Your task to perform on an android device: Search for flights from NYC to Mexico city Image 0: 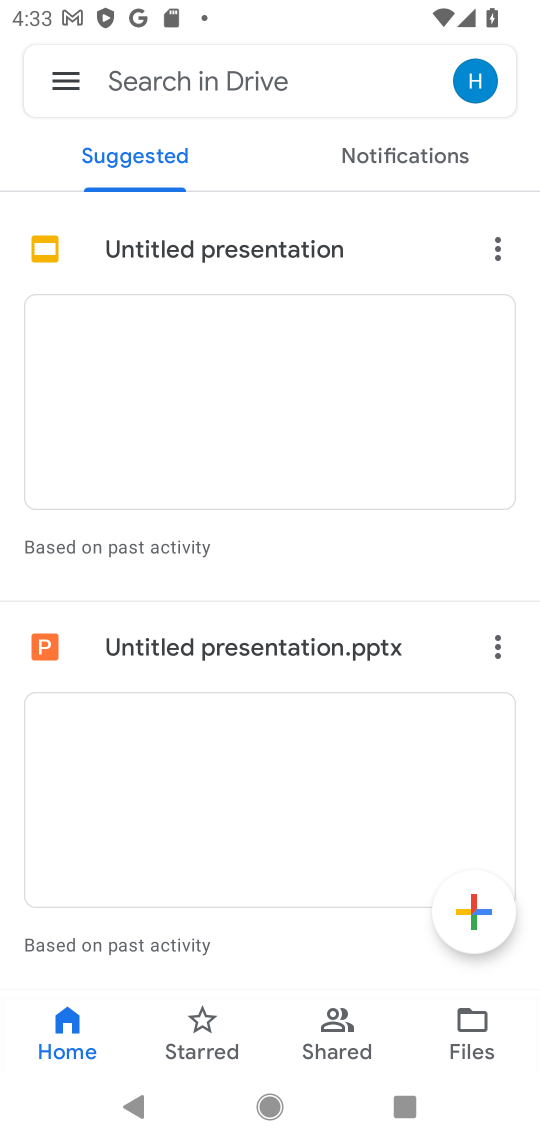
Step 0: press home button
Your task to perform on an android device: Search for flights from NYC to Mexico city Image 1: 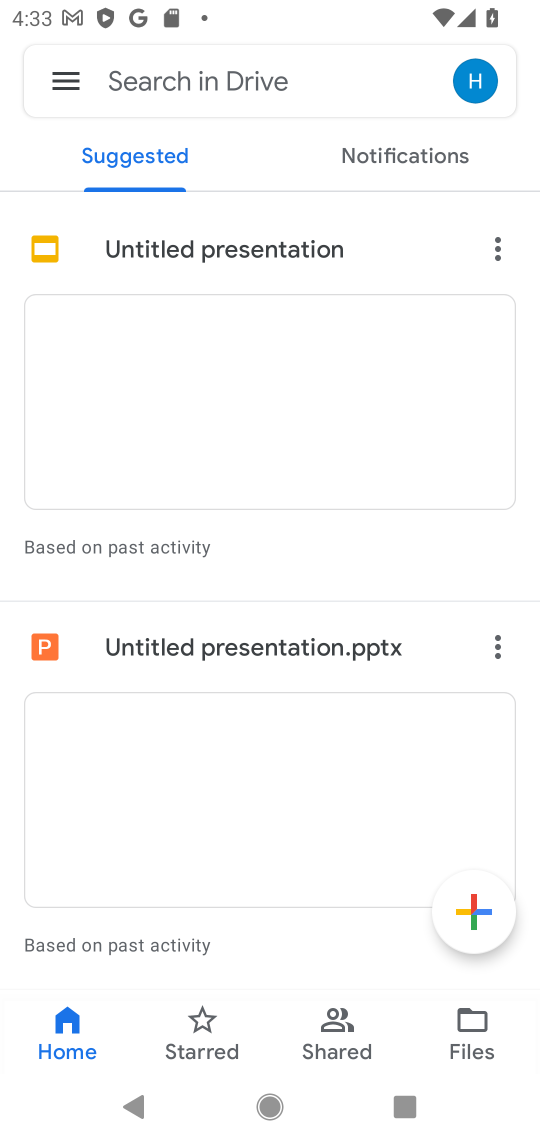
Step 1: press home button
Your task to perform on an android device: Search for flights from NYC to Mexico city Image 2: 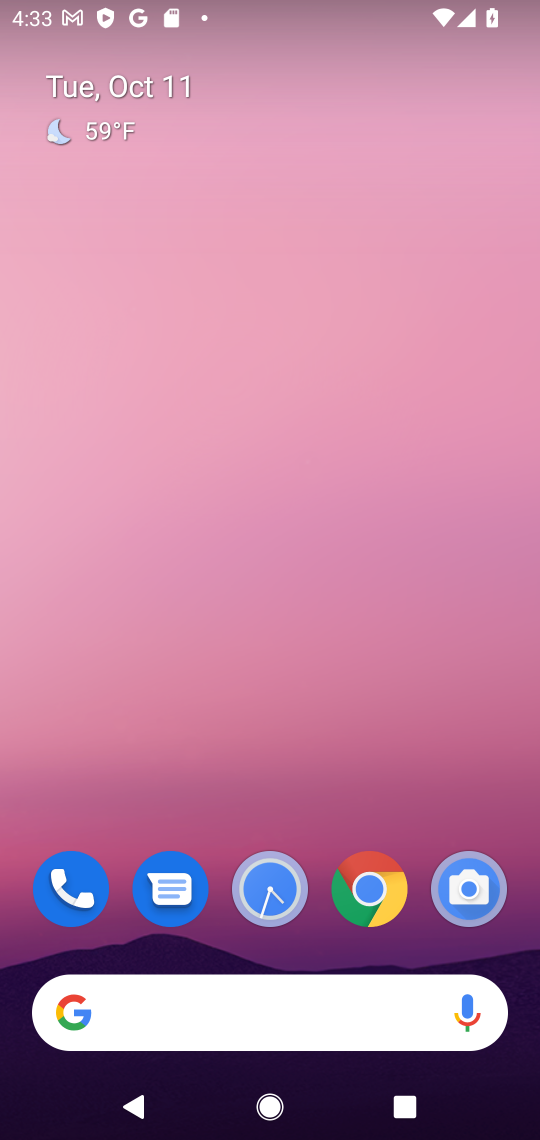
Step 2: drag from (289, 964) to (288, 358)
Your task to perform on an android device: Search for flights from NYC to Mexico city Image 3: 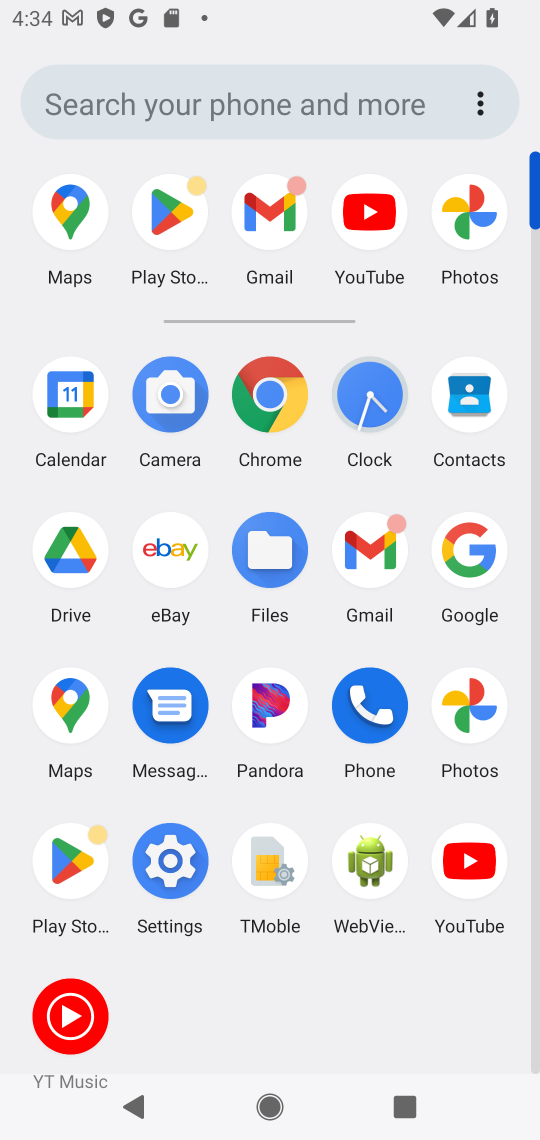
Step 3: click (482, 547)
Your task to perform on an android device: Search for flights from NYC to Mexico city Image 4: 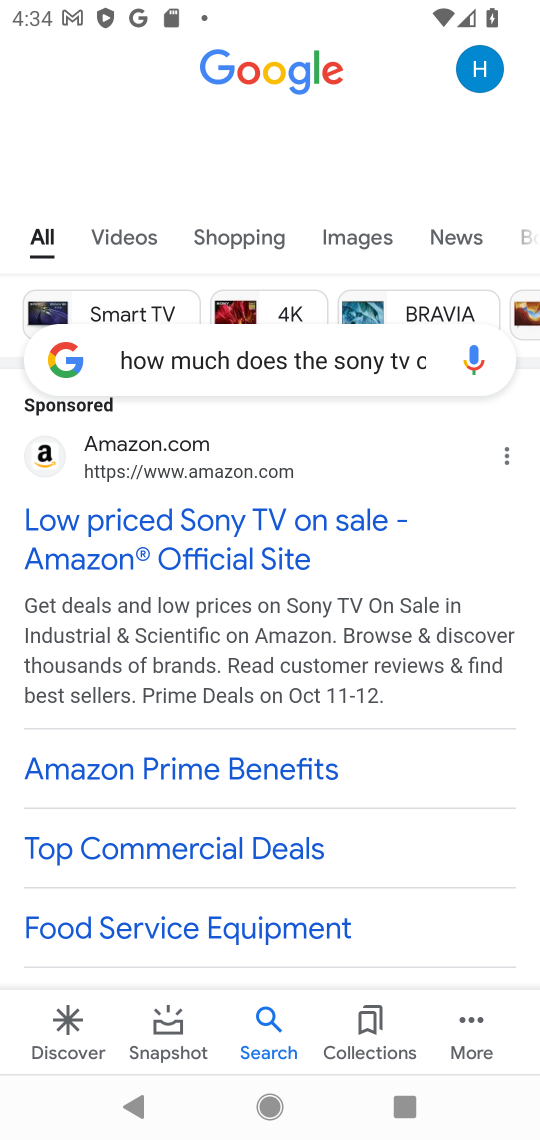
Step 4: click (206, 351)
Your task to perform on an android device: Search for flights from NYC to Mexico city Image 5: 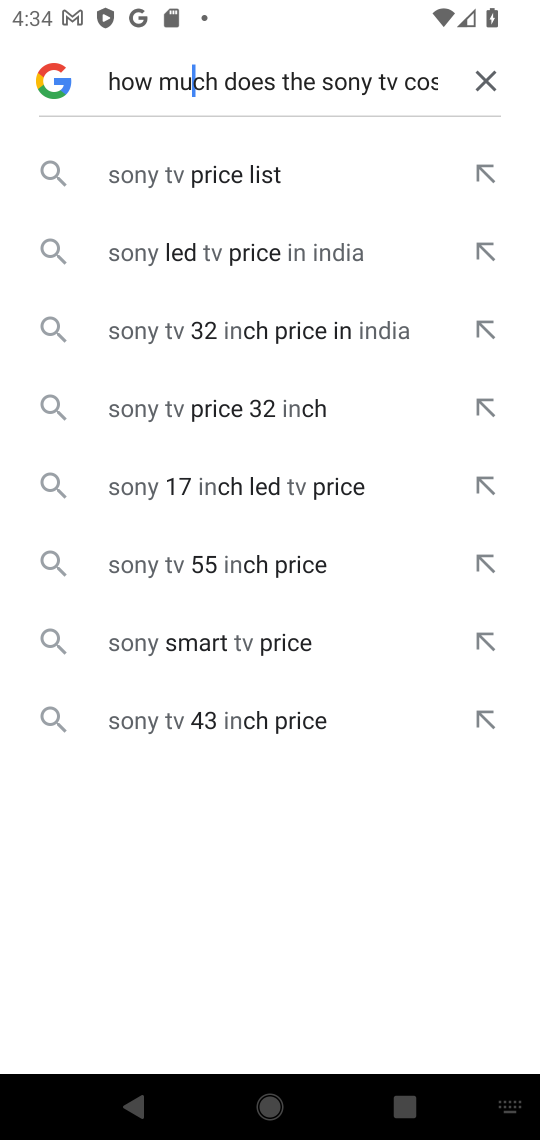
Step 5: click (501, 70)
Your task to perform on an android device: Search for flights from NYC to Mexico city Image 6: 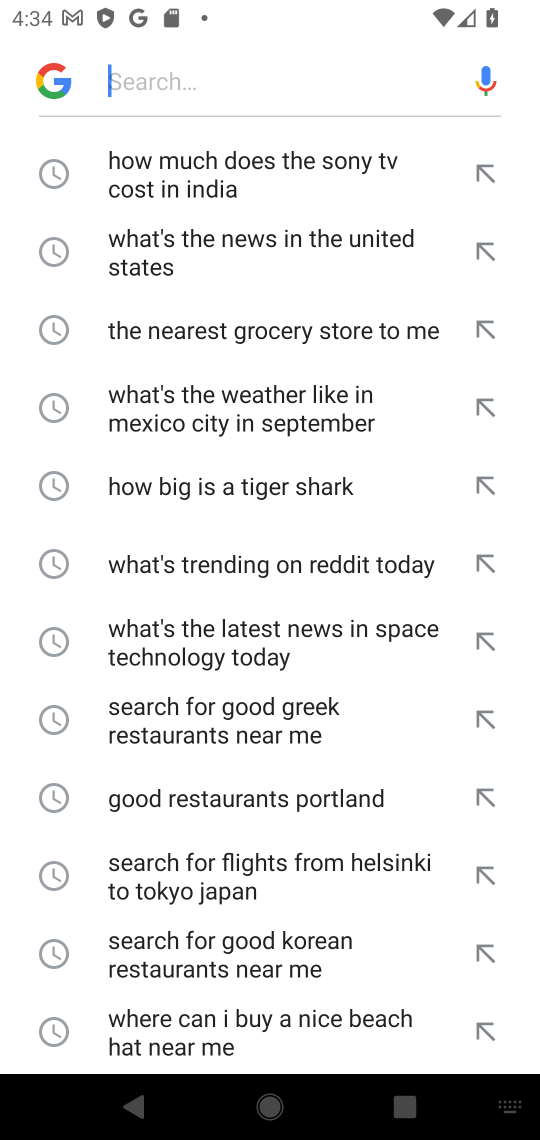
Step 6: click (303, 78)
Your task to perform on an android device: Search for flights from NYC to Mexico city Image 7: 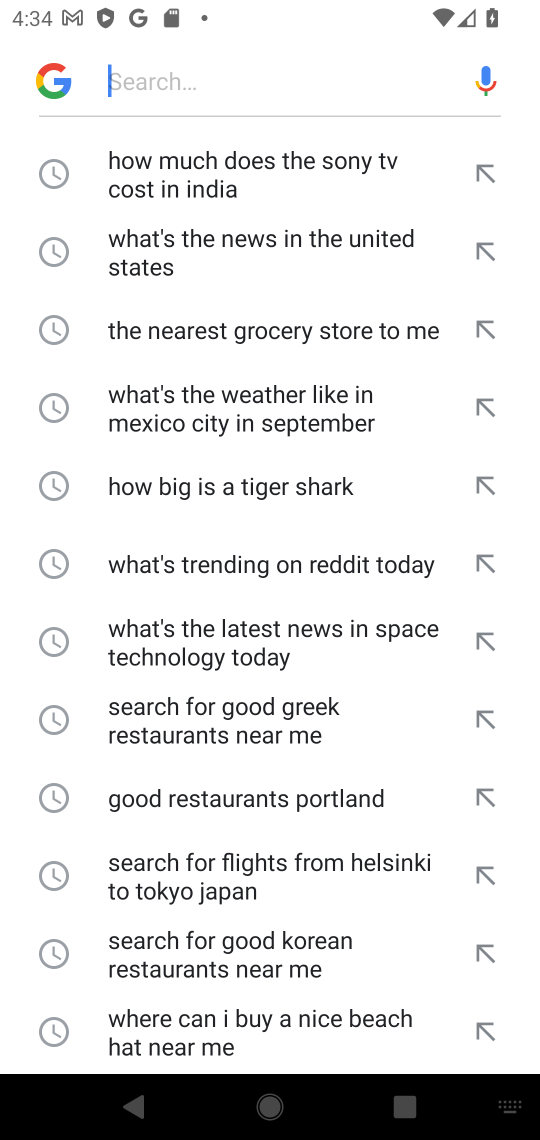
Step 7: type "Search for flights from NYC to Mexico city "
Your task to perform on an android device: Search for flights from NYC to Mexico city Image 8: 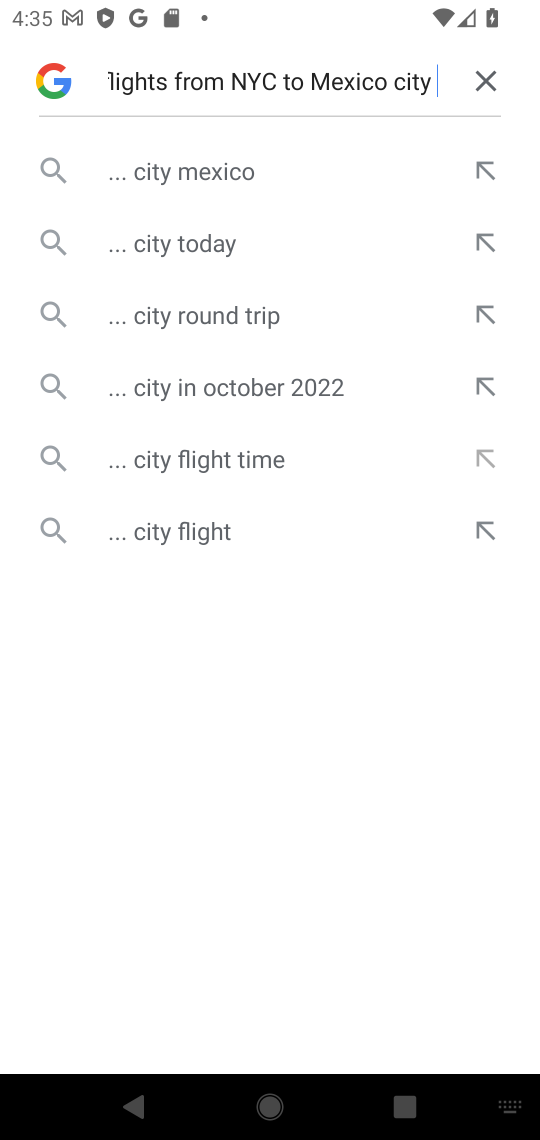
Step 8: click (159, 162)
Your task to perform on an android device: Search for flights from NYC to Mexico city Image 9: 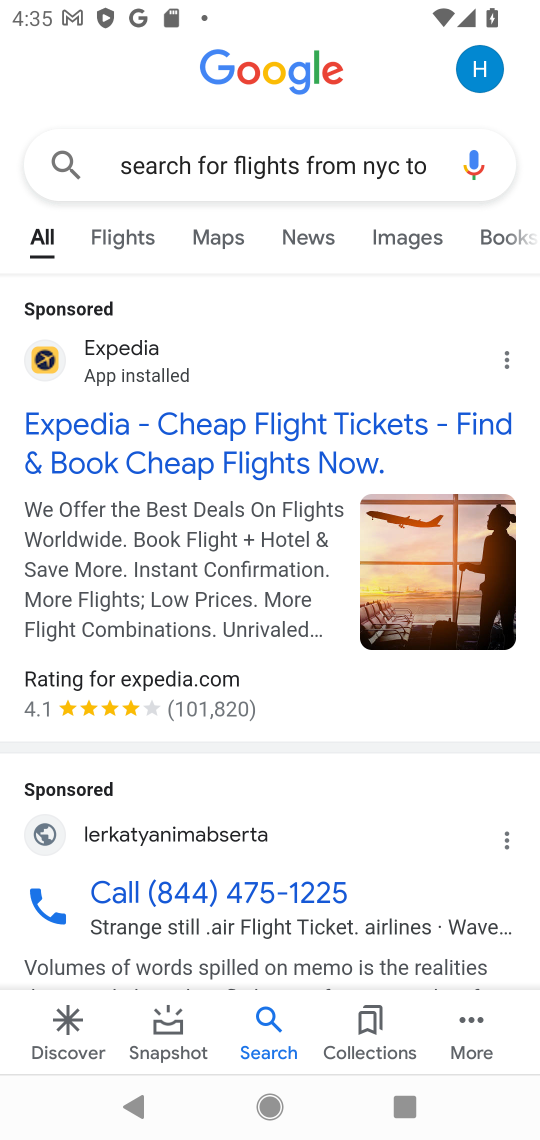
Step 9: click (279, 426)
Your task to perform on an android device: Search for flights from NYC to Mexico city Image 10: 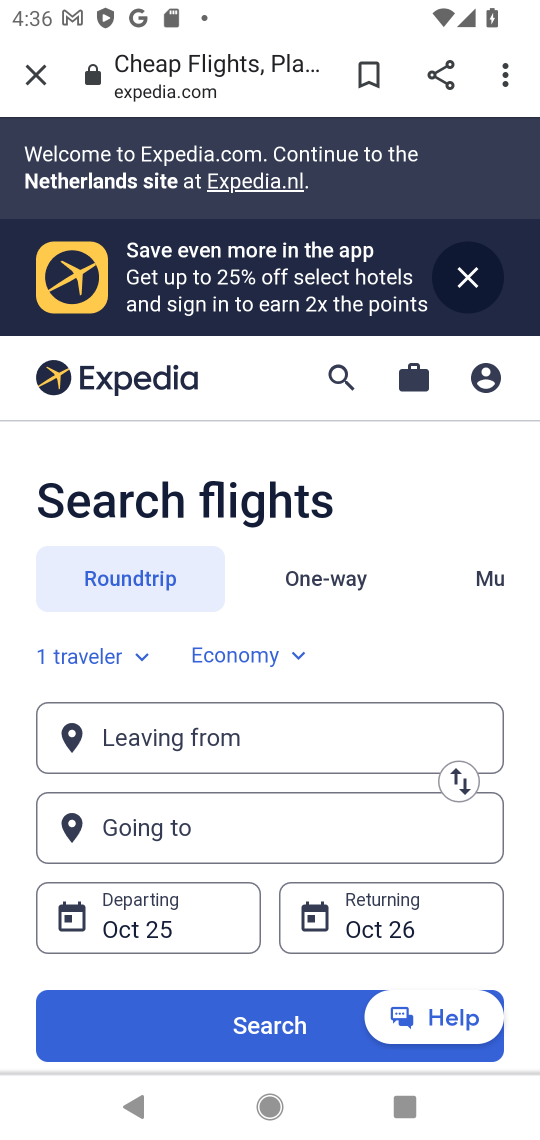
Step 10: click (223, 1020)
Your task to perform on an android device: Search for flights from NYC to Mexico city Image 11: 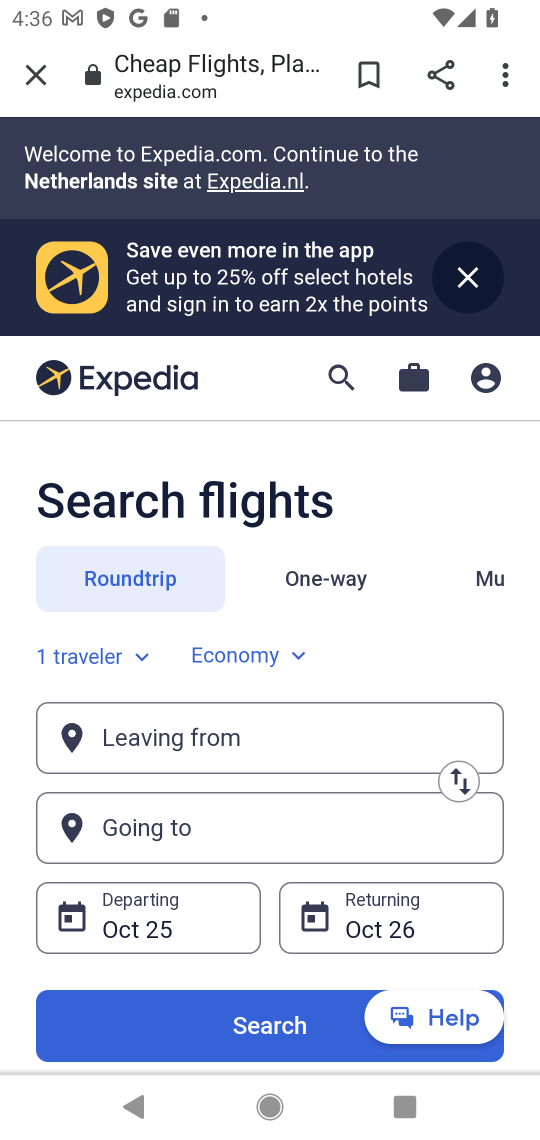
Step 11: task complete